Your task to perform on an android device: Go to eBay Image 0: 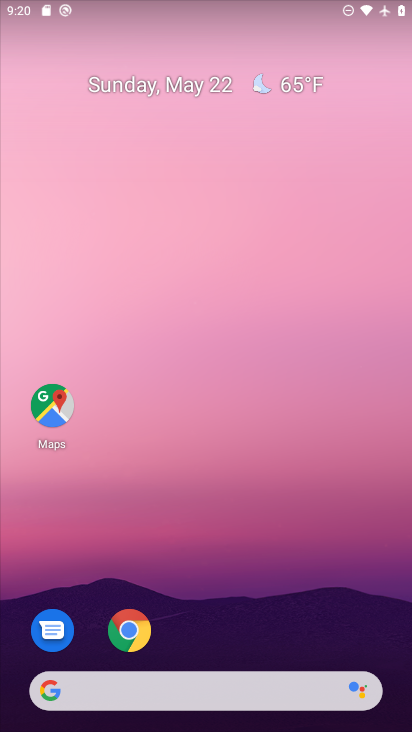
Step 0: press home button
Your task to perform on an android device: Go to eBay Image 1: 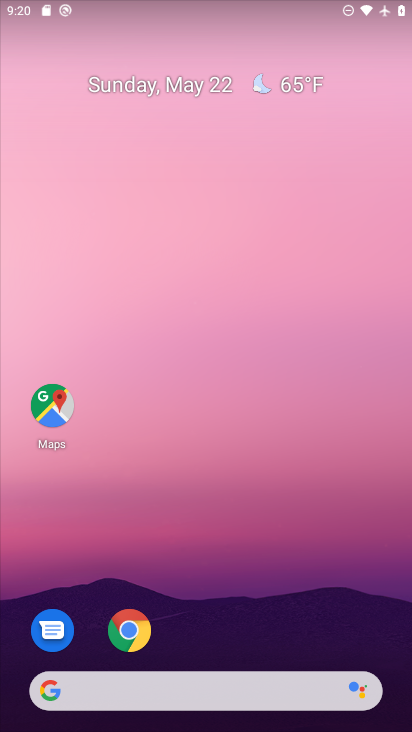
Step 1: click (134, 640)
Your task to perform on an android device: Go to eBay Image 2: 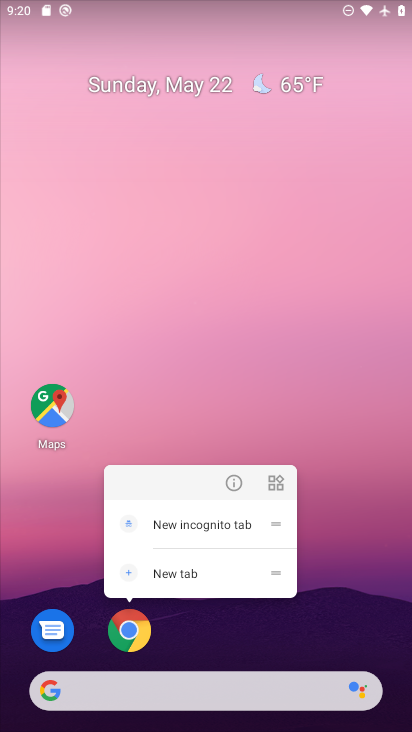
Step 2: click (133, 631)
Your task to perform on an android device: Go to eBay Image 3: 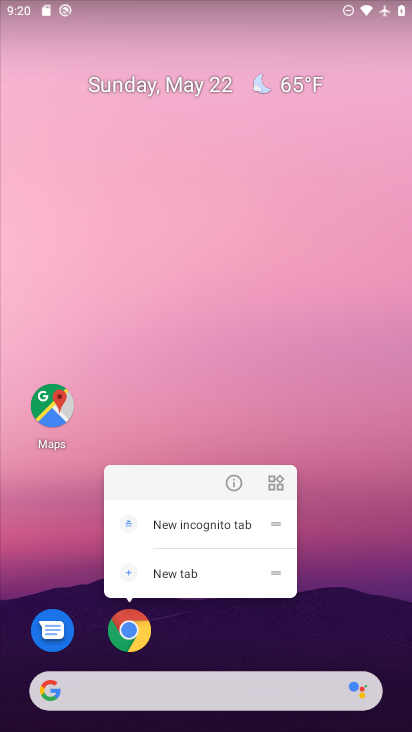
Step 3: click (122, 636)
Your task to perform on an android device: Go to eBay Image 4: 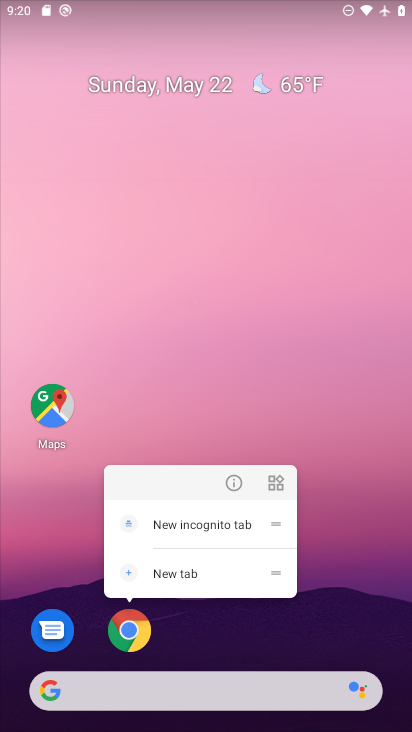
Step 4: click (127, 634)
Your task to perform on an android device: Go to eBay Image 5: 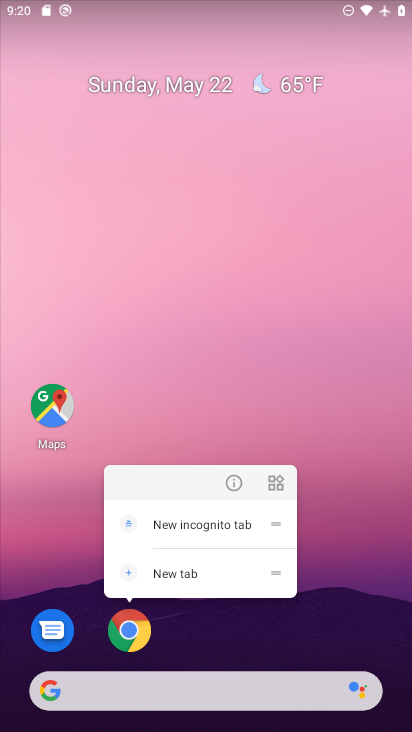
Step 5: click (132, 634)
Your task to perform on an android device: Go to eBay Image 6: 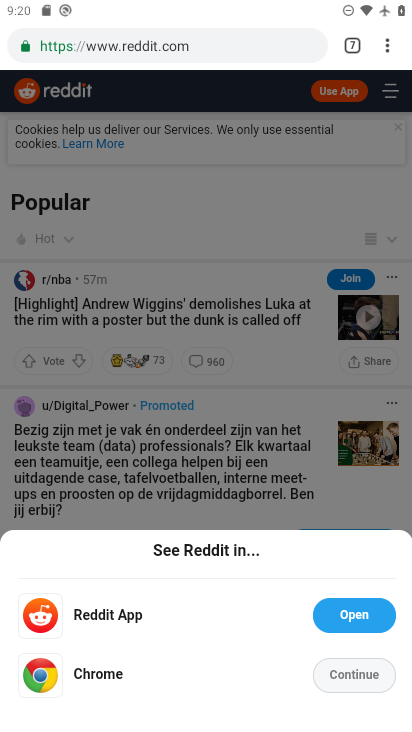
Step 6: drag from (383, 43) to (292, 91)
Your task to perform on an android device: Go to eBay Image 7: 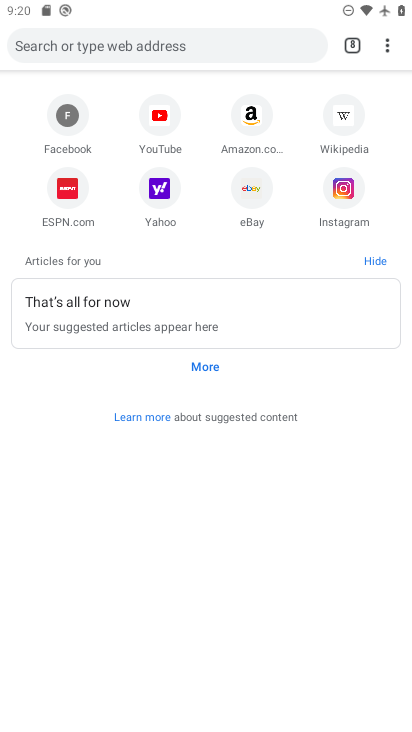
Step 7: click (244, 192)
Your task to perform on an android device: Go to eBay Image 8: 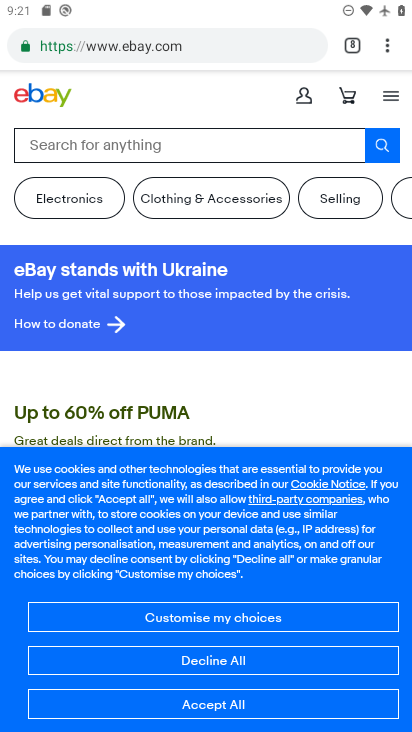
Step 8: task complete